Your task to perform on an android device: What's the weather going to be tomorrow? Image 0: 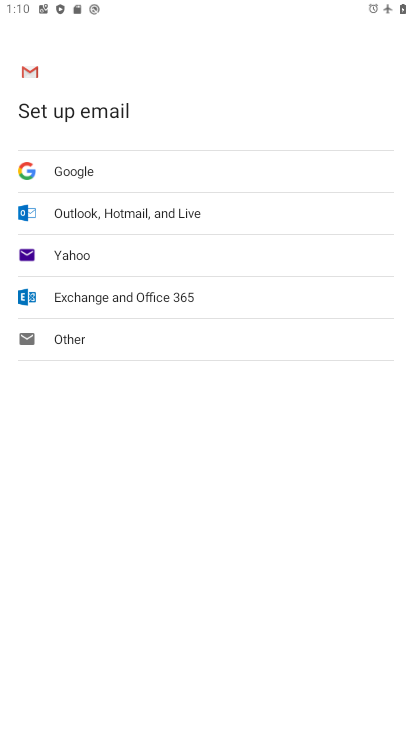
Step 0: press home button
Your task to perform on an android device: What's the weather going to be tomorrow? Image 1: 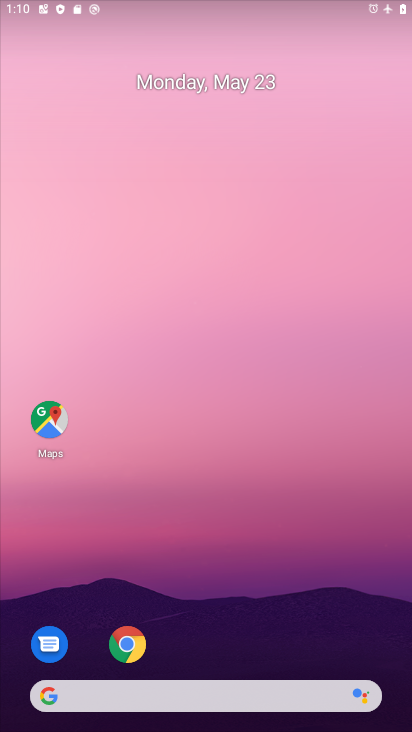
Step 1: drag from (340, 637) to (255, 105)
Your task to perform on an android device: What's the weather going to be tomorrow? Image 2: 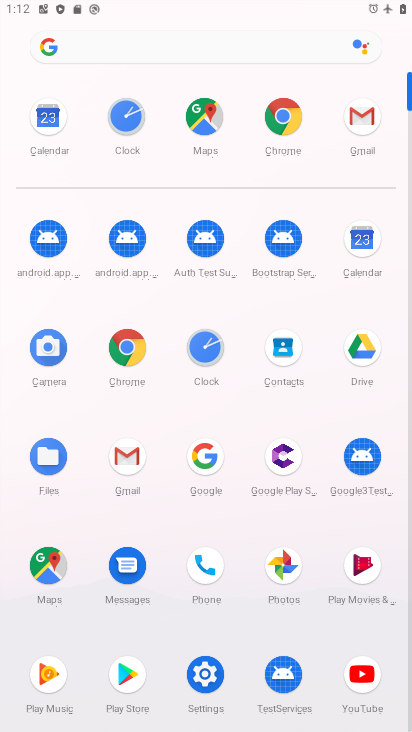
Step 2: click (197, 470)
Your task to perform on an android device: What's the weather going to be tomorrow? Image 3: 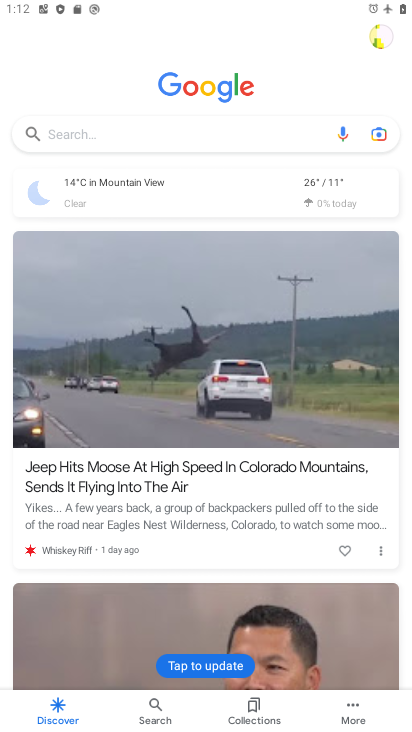
Step 3: click (157, 141)
Your task to perform on an android device: What's the weather going to be tomorrow? Image 4: 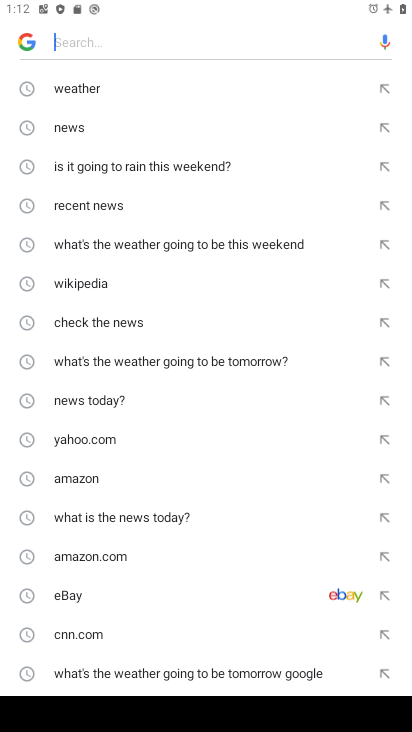
Step 4: click (163, 363)
Your task to perform on an android device: What's the weather going to be tomorrow? Image 5: 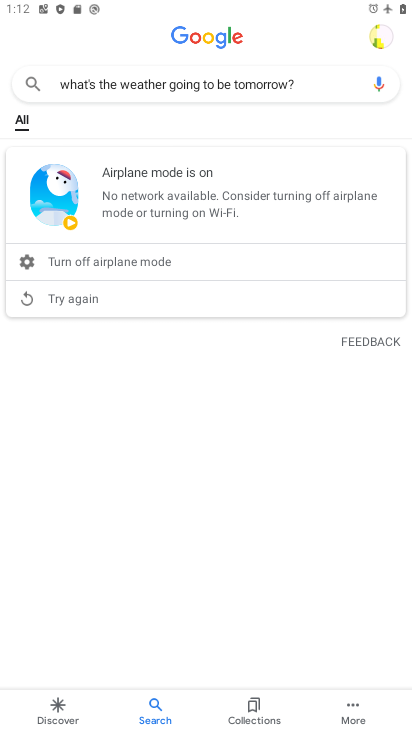
Step 5: task complete